Your task to perform on an android device: check out phone information Image 0: 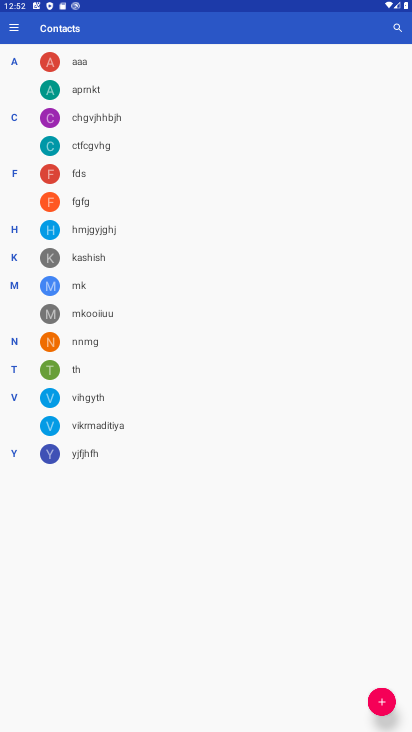
Step 0: press back button
Your task to perform on an android device: check out phone information Image 1: 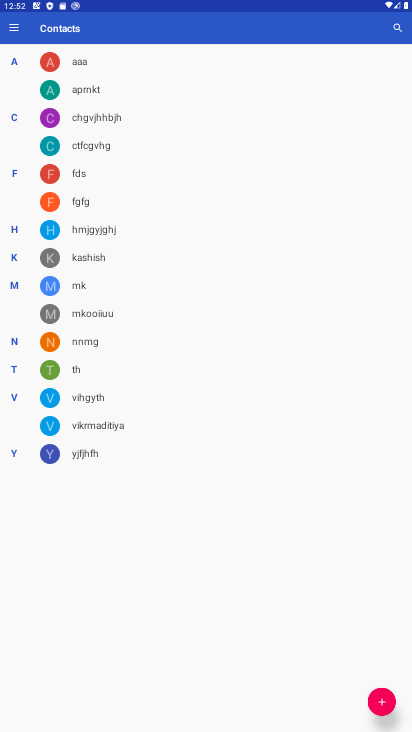
Step 1: press back button
Your task to perform on an android device: check out phone information Image 2: 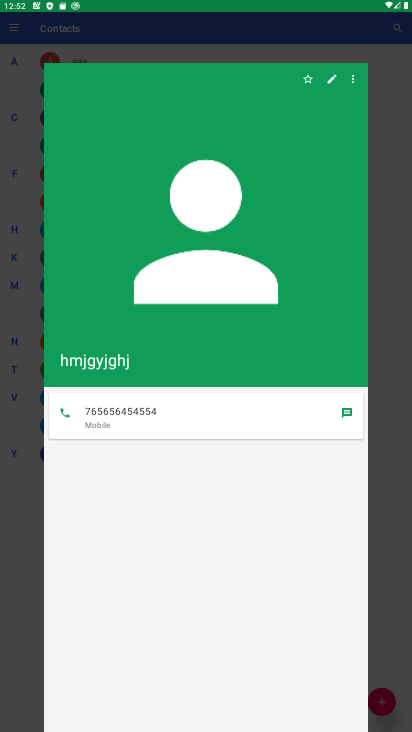
Step 2: press back button
Your task to perform on an android device: check out phone information Image 3: 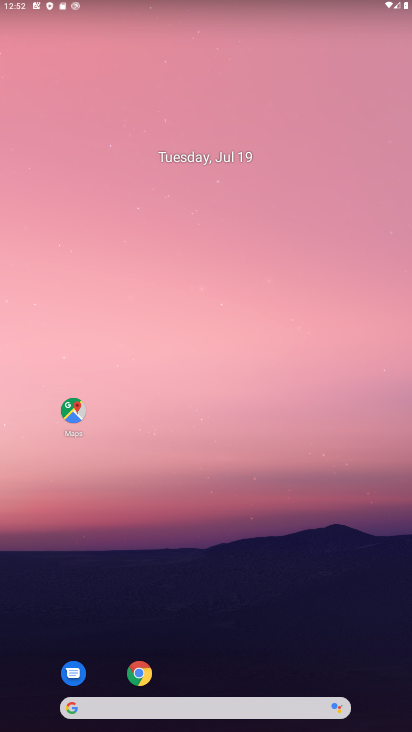
Step 3: drag from (188, 500) to (88, 73)
Your task to perform on an android device: check out phone information Image 4: 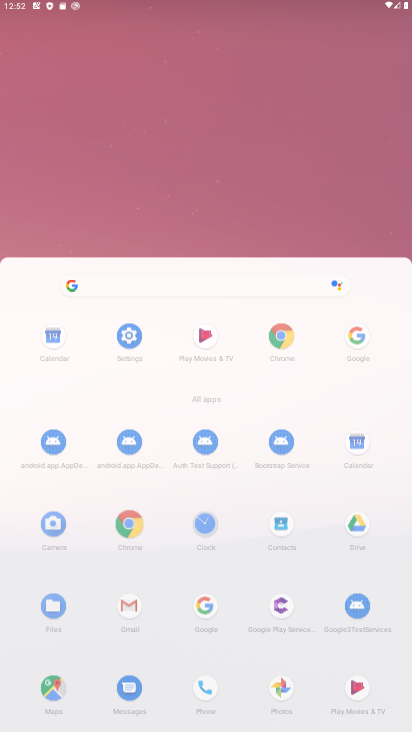
Step 4: drag from (196, 459) to (112, 49)
Your task to perform on an android device: check out phone information Image 5: 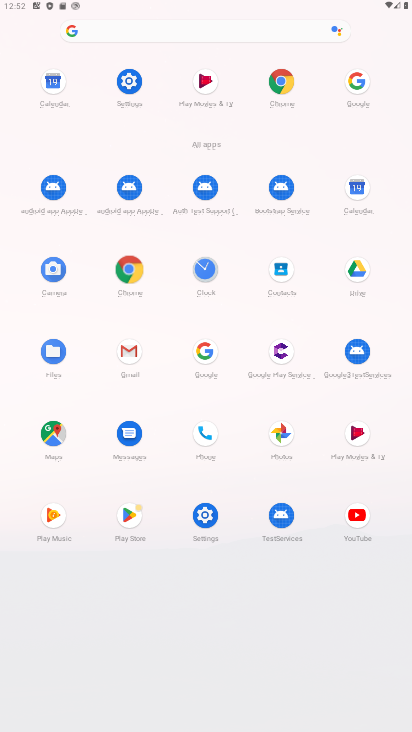
Step 5: drag from (143, 221) to (117, 30)
Your task to perform on an android device: check out phone information Image 6: 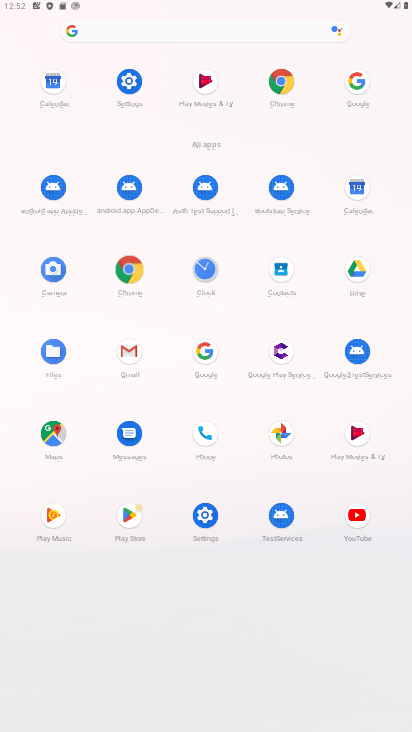
Step 6: click (198, 514)
Your task to perform on an android device: check out phone information Image 7: 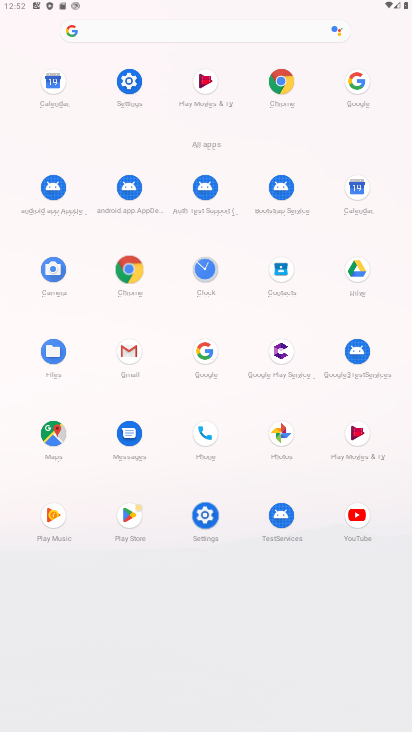
Step 7: click (202, 512)
Your task to perform on an android device: check out phone information Image 8: 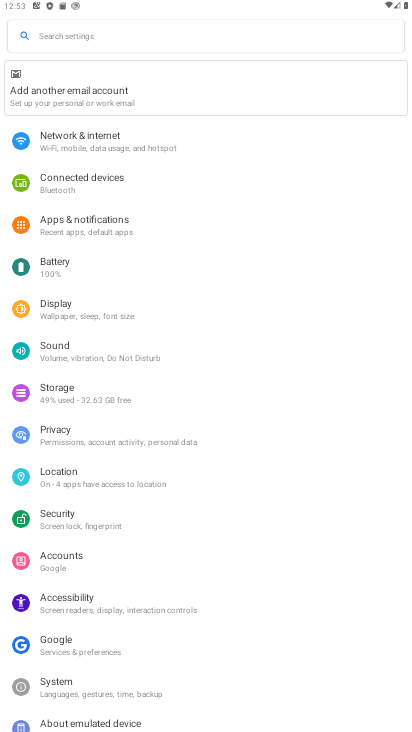
Step 8: click (65, 153)
Your task to perform on an android device: check out phone information Image 9: 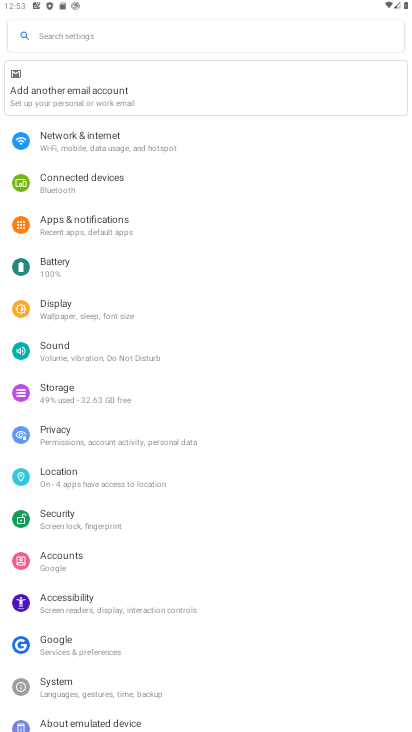
Step 9: drag from (111, 493) to (57, 251)
Your task to perform on an android device: check out phone information Image 10: 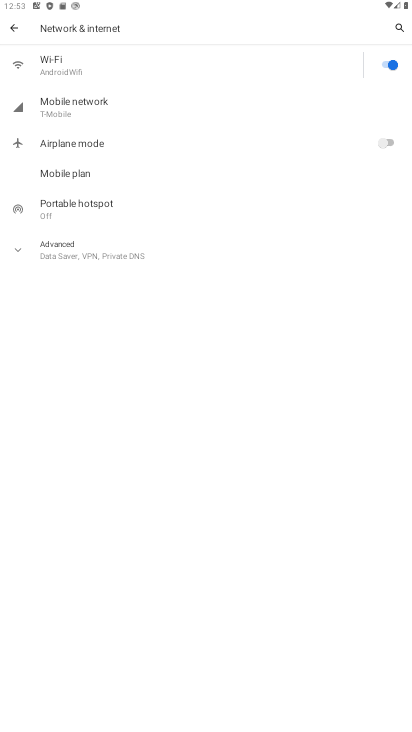
Step 10: click (79, 365)
Your task to perform on an android device: check out phone information Image 11: 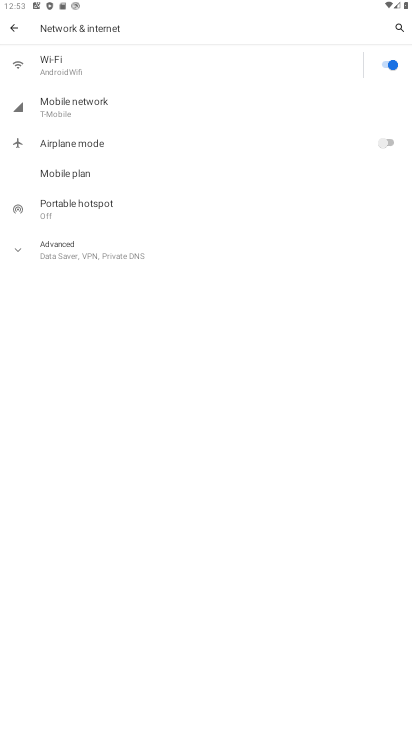
Step 11: click (7, 32)
Your task to perform on an android device: check out phone information Image 12: 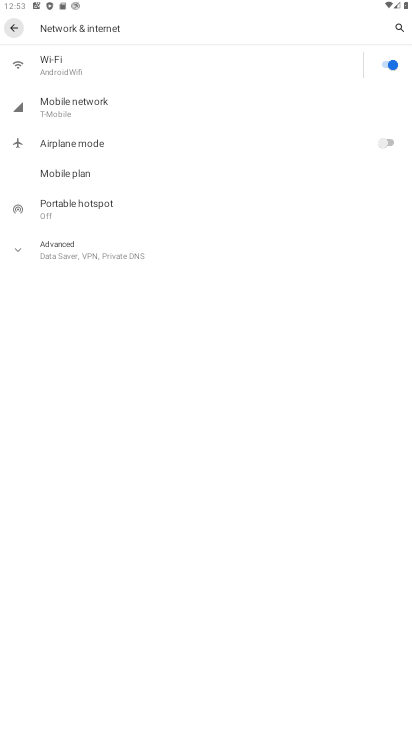
Step 12: click (11, 29)
Your task to perform on an android device: check out phone information Image 13: 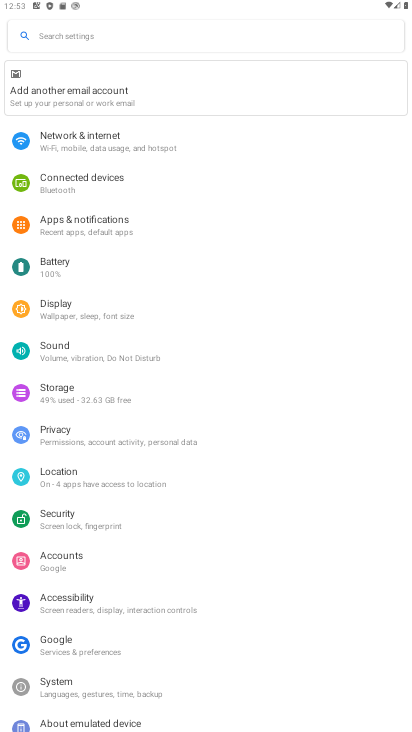
Step 13: drag from (100, 304) to (90, 52)
Your task to perform on an android device: check out phone information Image 14: 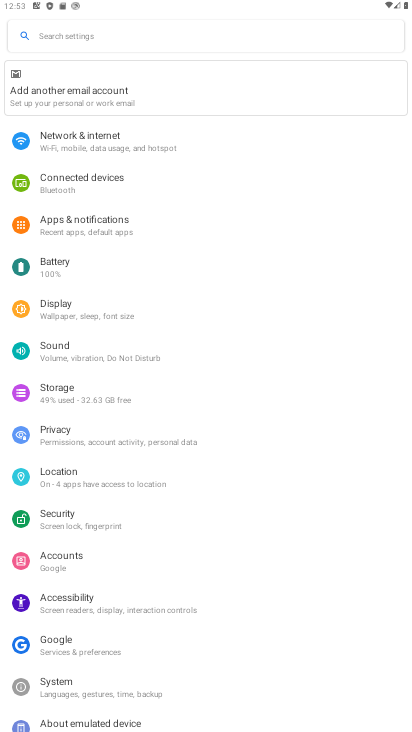
Step 14: click (92, 182)
Your task to perform on an android device: check out phone information Image 15: 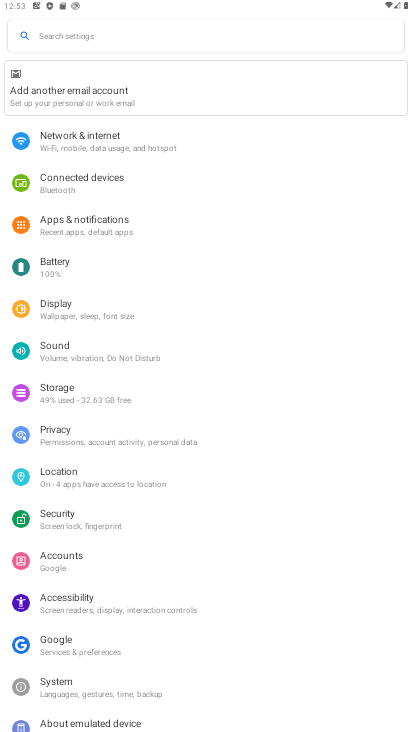
Step 15: drag from (38, 284) to (38, 246)
Your task to perform on an android device: check out phone information Image 16: 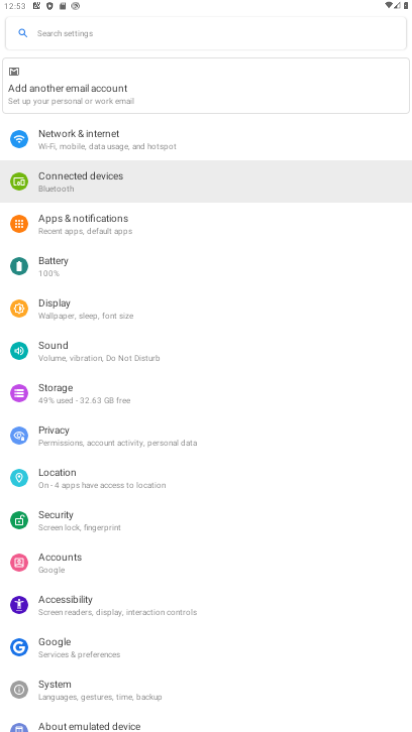
Step 16: drag from (85, 380) to (85, 272)
Your task to perform on an android device: check out phone information Image 17: 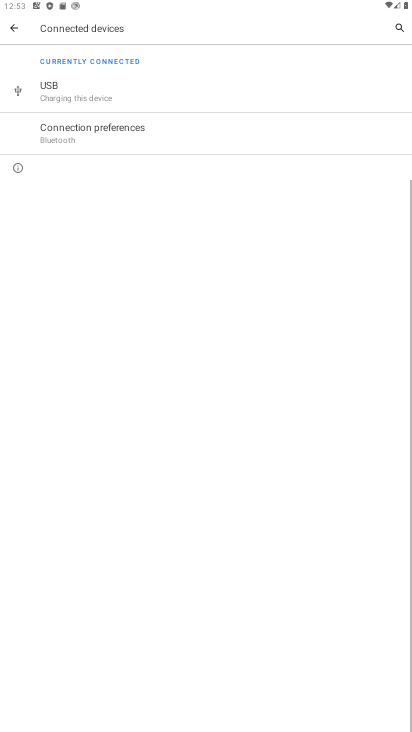
Step 17: drag from (101, 464) to (101, 241)
Your task to perform on an android device: check out phone information Image 18: 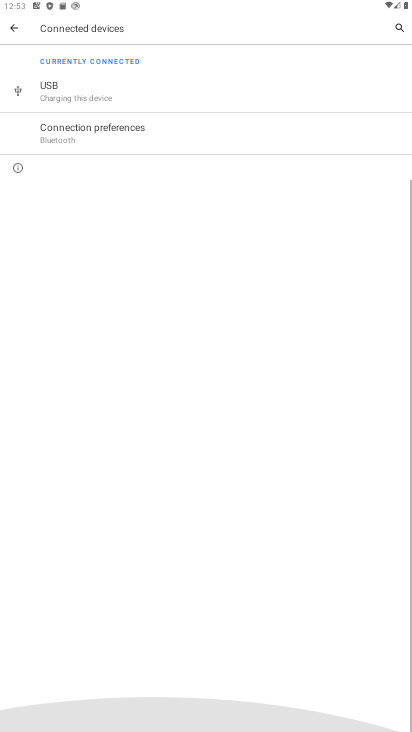
Step 18: click (91, 529)
Your task to perform on an android device: check out phone information Image 19: 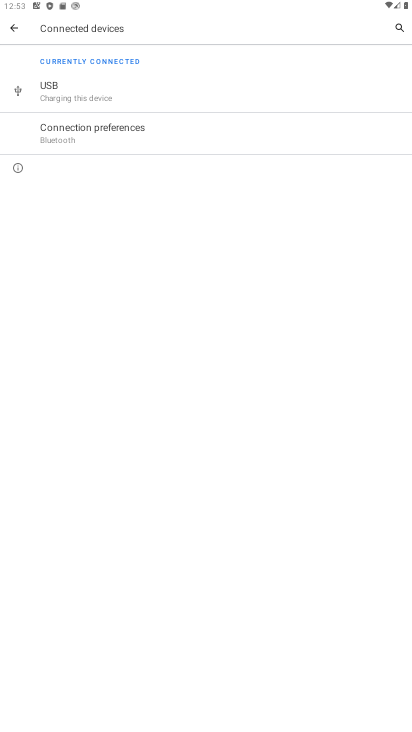
Step 19: click (19, 20)
Your task to perform on an android device: check out phone information Image 20: 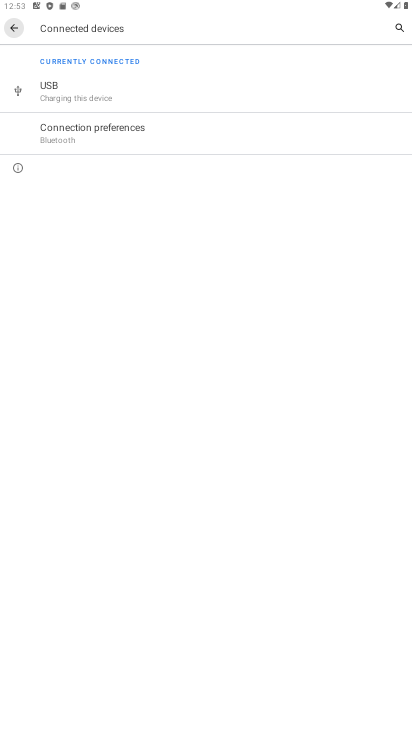
Step 20: click (15, 28)
Your task to perform on an android device: check out phone information Image 21: 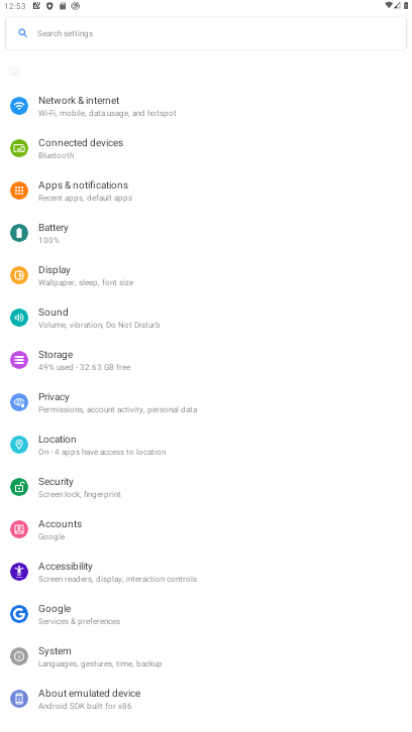
Step 21: click (15, 28)
Your task to perform on an android device: check out phone information Image 22: 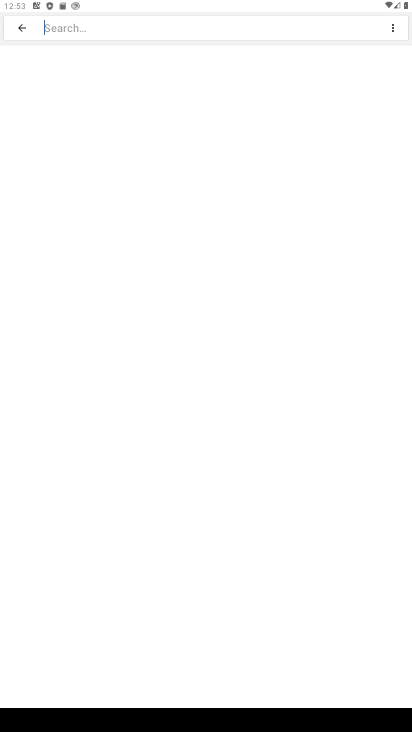
Step 22: click (16, 25)
Your task to perform on an android device: check out phone information Image 23: 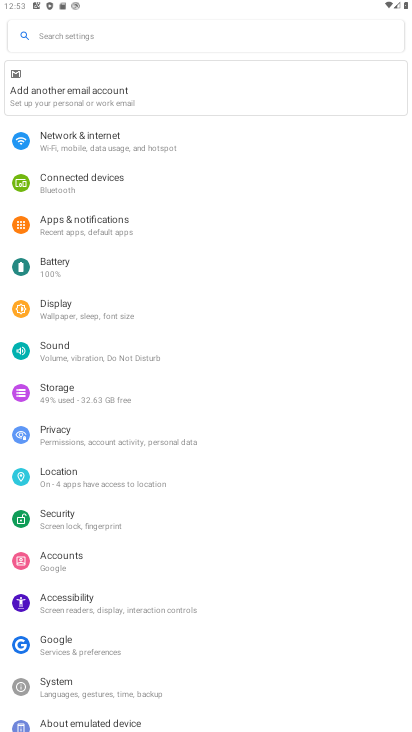
Step 23: drag from (88, 699) to (71, 403)
Your task to perform on an android device: check out phone information Image 24: 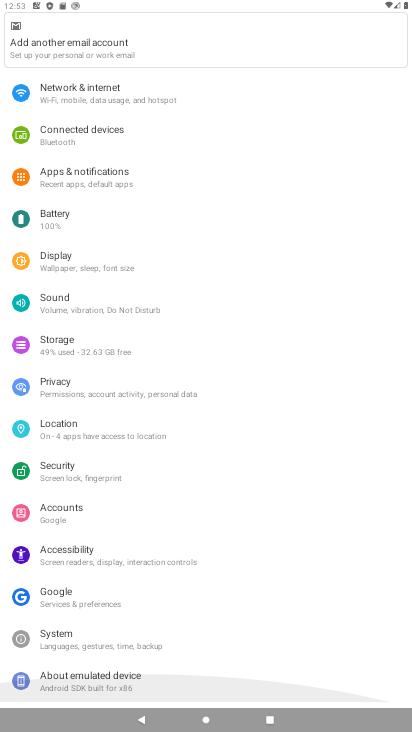
Step 24: drag from (84, 576) to (68, 340)
Your task to perform on an android device: check out phone information Image 25: 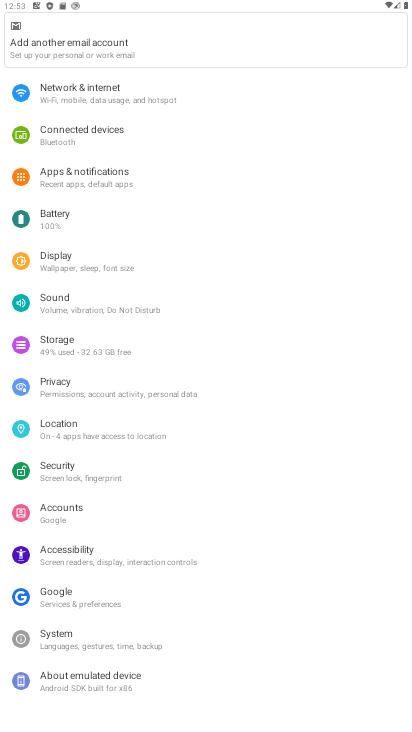
Step 25: click (66, 677)
Your task to perform on an android device: check out phone information Image 26: 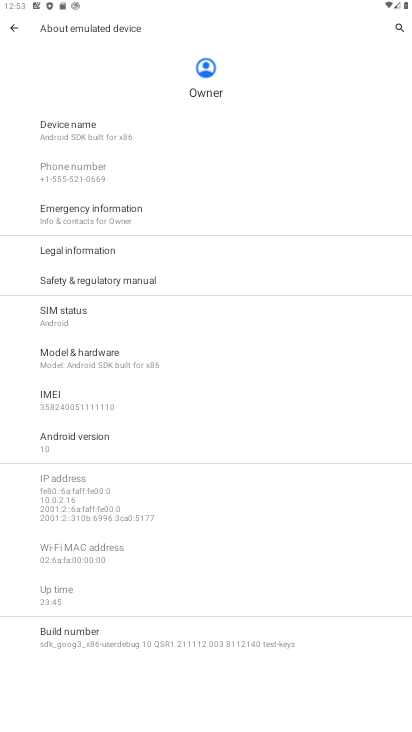
Step 26: click (96, 675)
Your task to perform on an android device: check out phone information Image 27: 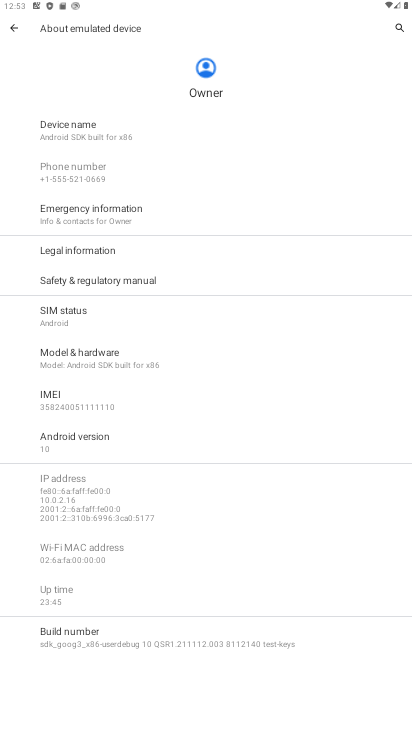
Step 27: click (94, 677)
Your task to perform on an android device: check out phone information Image 28: 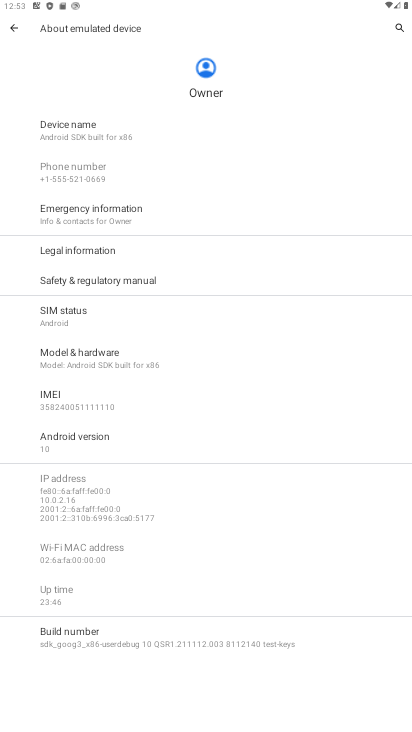
Step 28: click (93, 681)
Your task to perform on an android device: check out phone information Image 29: 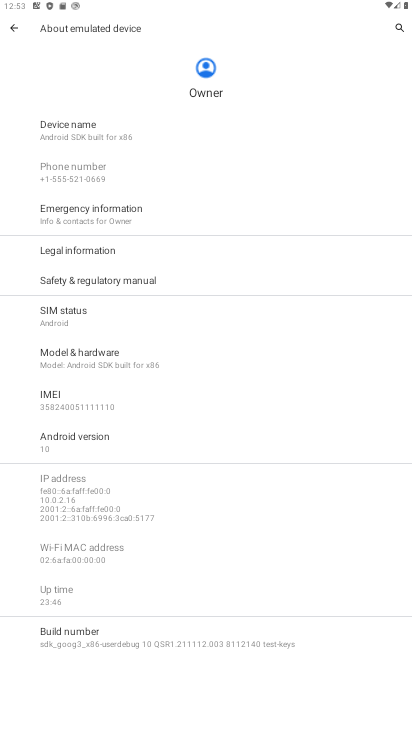
Step 29: click (97, 684)
Your task to perform on an android device: check out phone information Image 30: 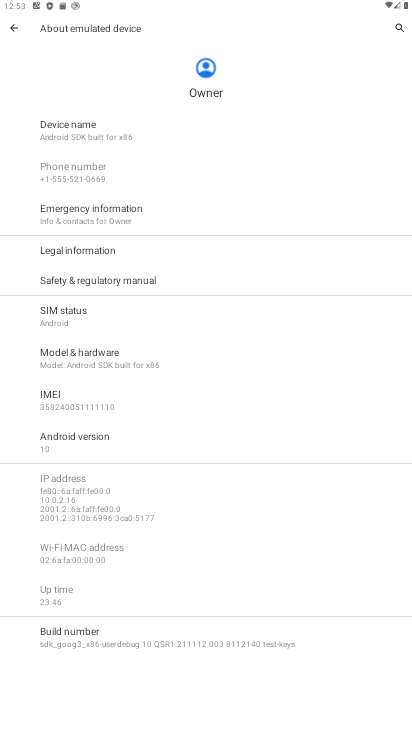
Step 30: click (97, 684)
Your task to perform on an android device: check out phone information Image 31: 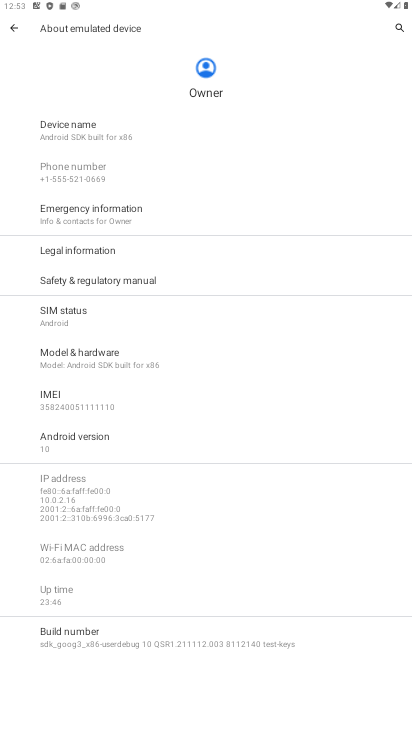
Step 31: click (90, 677)
Your task to perform on an android device: check out phone information Image 32: 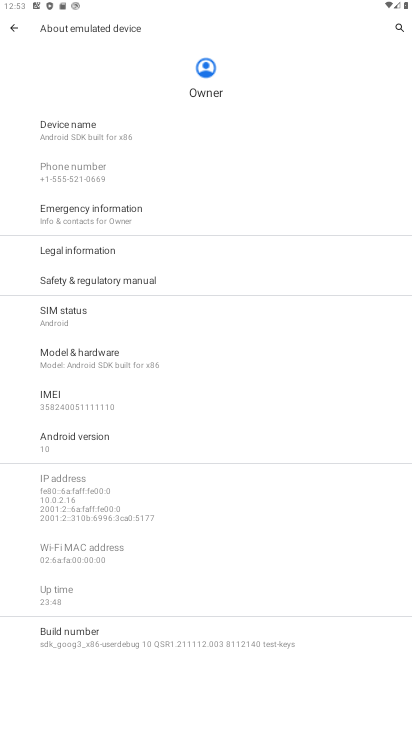
Step 32: task complete